Your task to perform on an android device: Open Google Chrome Image 0: 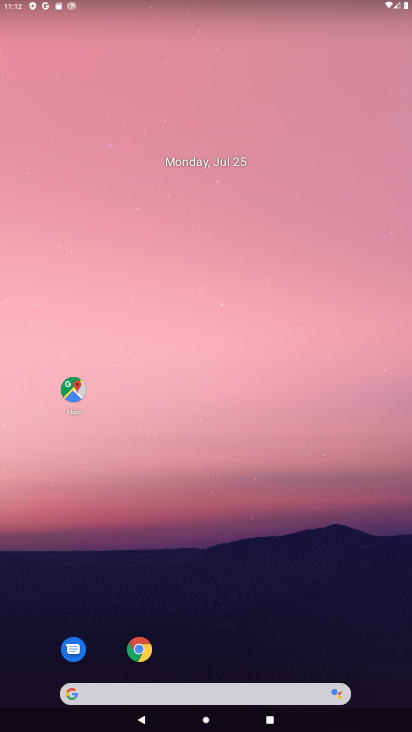
Step 0: drag from (258, 587) to (258, 299)
Your task to perform on an android device: Open Google Chrome Image 1: 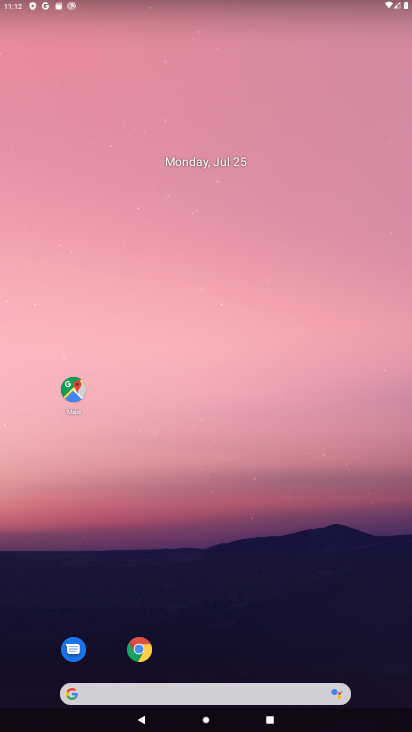
Step 1: click (145, 652)
Your task to perform on an android device: Open Google Chrome Image 2: 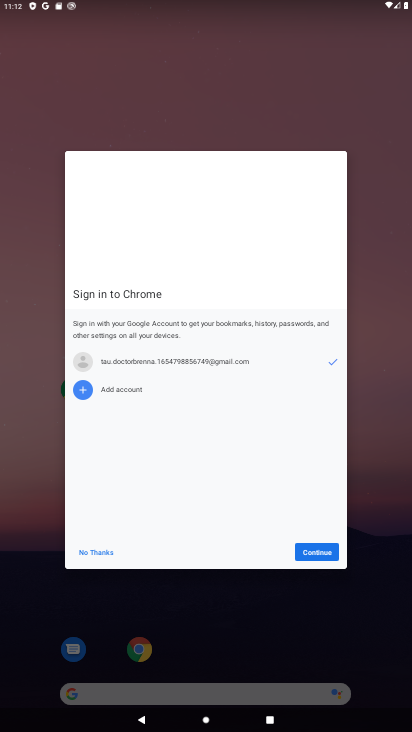
Step 2: click (315, 555)
Your task to perform on an android device: Open Google Chrome Image 3: 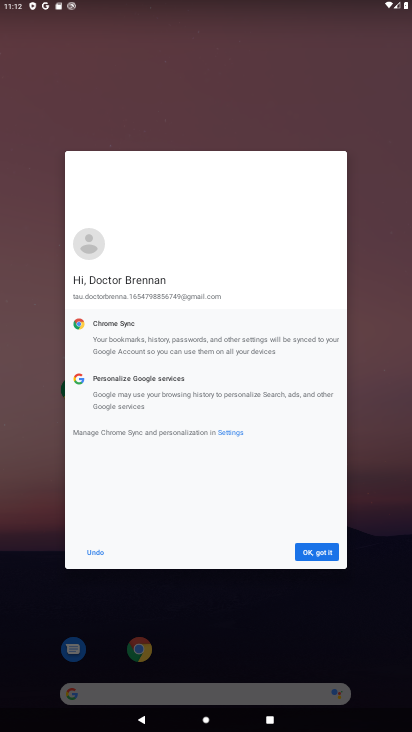
Step 3: click (313, 555)
Your task to perform on an android device: Open Google Chrome Image 4: 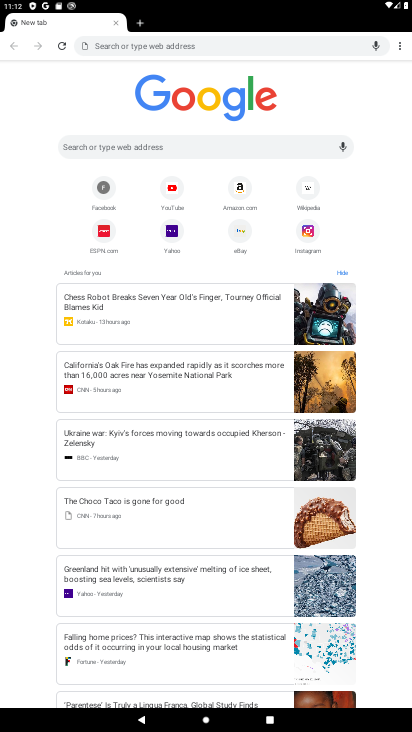
Step 4: task complete